Your task to perform on an android device: search for starred emails in the gmail app Image 0: 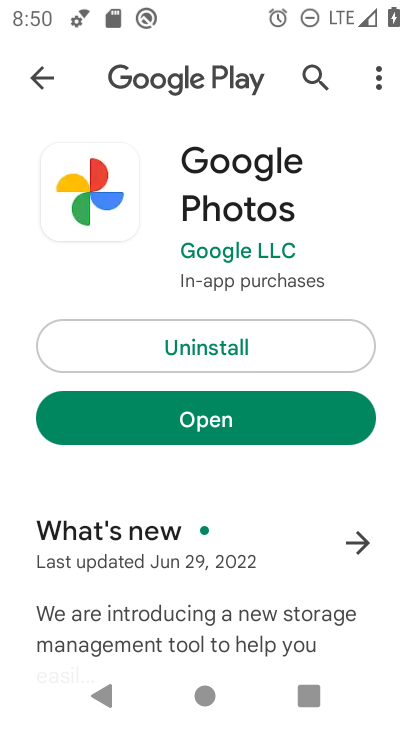
Step 0: press home button
Your task to perform on an android device: search for starred emails in the gmail app Image 1: 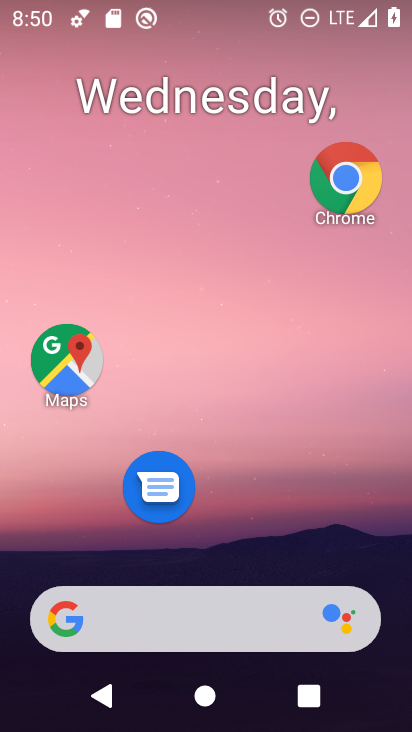
Step 1: drag from (287, 583) to (378, 5)
Your task to perform on an android device: search for starred emails in the gmail app Image 2: 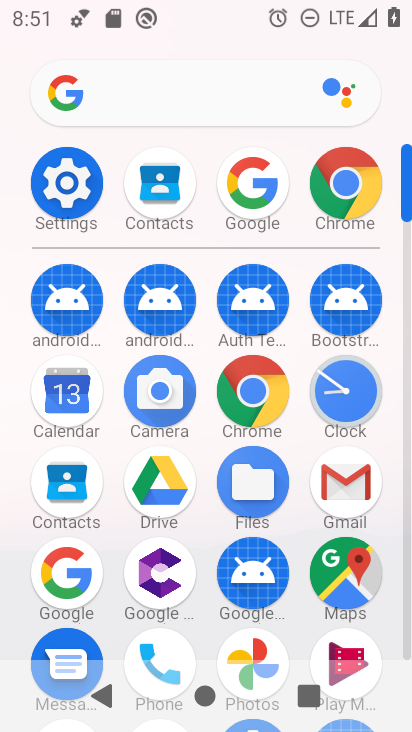
Step 2: click (347, 506)
Your task to perform on an android device: search for starred emails in the gmail app Image 3: 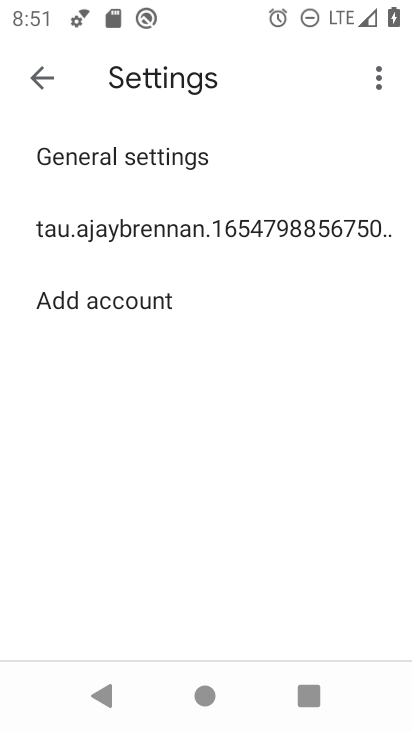
Step 3: click (44, 77)
Your task to perform on an android device: search for starred emails in the gmail app Image 4: 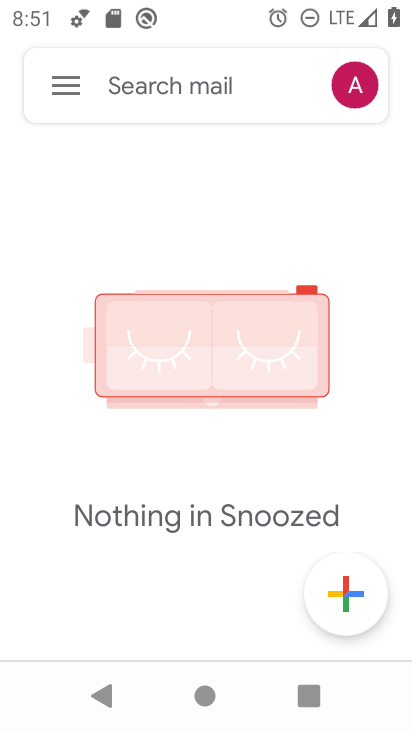
Step 4: click (65, 96)
Your task to perform on an android device: search for starred emails in the gmail app Image 5: 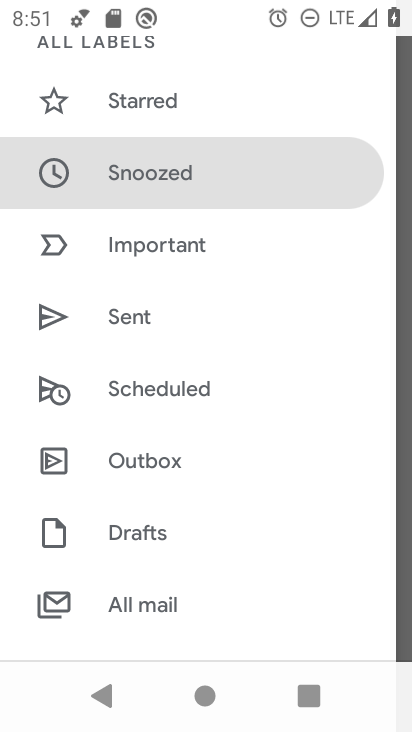
Step 5: click (166, 111)
Your task to perform on an android device: search for starred emails in the gmail app Image 6: 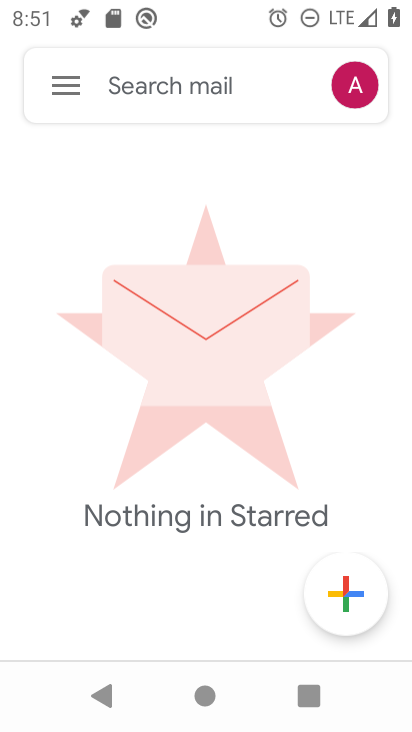
Step 6: task complete